Your task to perform on an android device: Open the phone app and click the voicemail tab. Image 0: 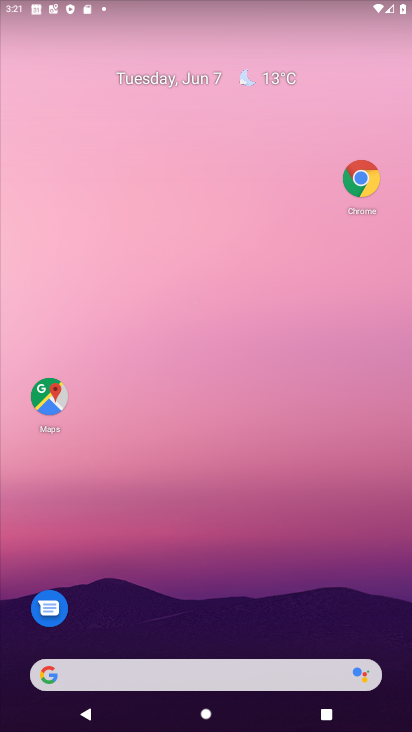
Step 0: drag from (196, 621) to (270, 200)
Your task to perform on an android device: Open the phone app and click the voicemail tab. Image 1: 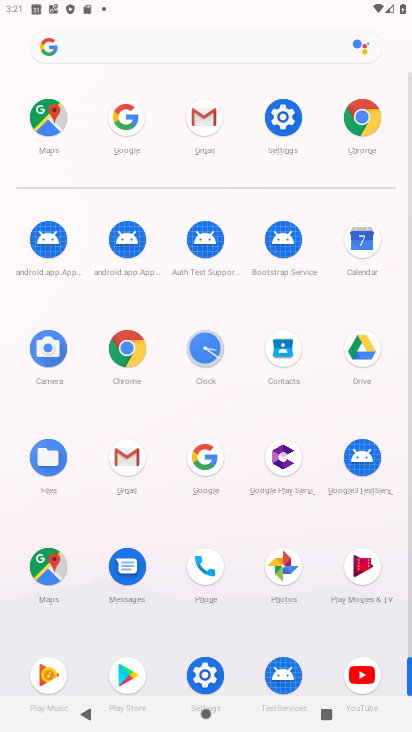
Step 1: click (202, 560)
Your task to perform on an android device: Open the phone app and click the voicemail tab. Image 2: 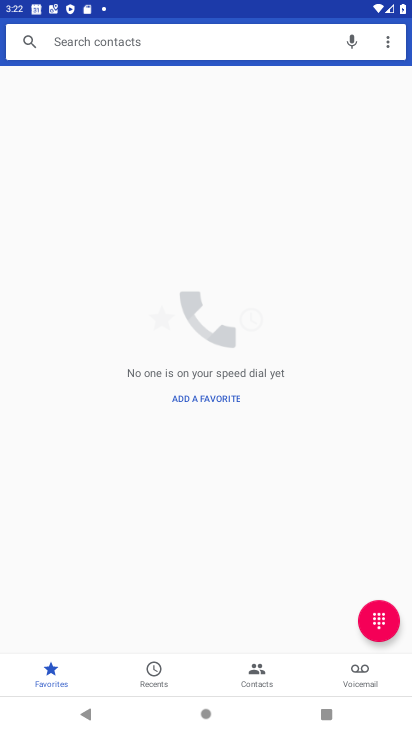
Step 2: click (359, 679)
Your task to perform on an android device: Open the phone app and click the voicemail tab. Image 3: 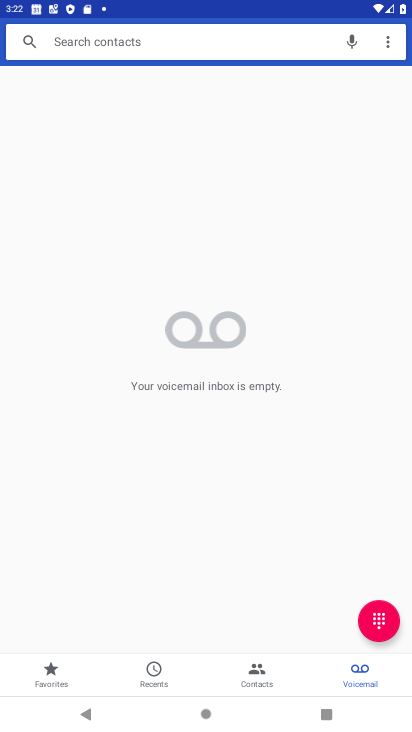
Step 3: task complete